Your task to perform on an android device: Show me the alarms in the clock app Image 0: 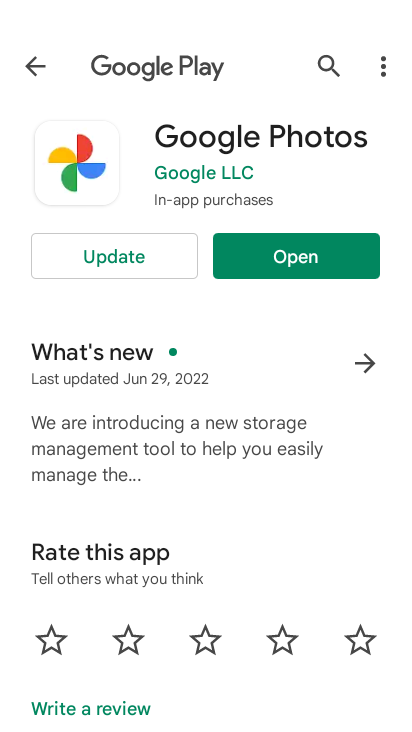
Step 0: press home button
Your task to perform on an android device: Show me the alarms in the clock app Image 1: 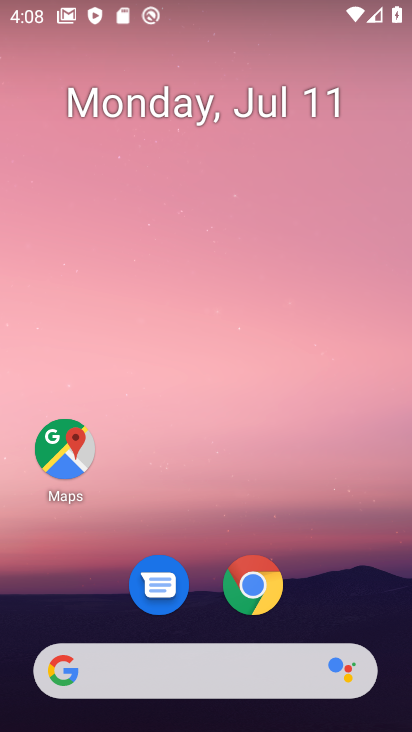
Step 1: drag from (227, 513) to (202, 59)
Your task to perform on an android device: Show me the alarms in the clock app Image 2: 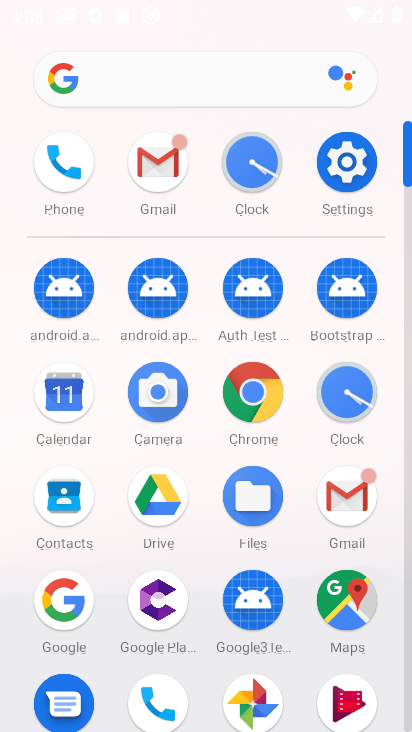
Step 2: click (256, 175)
Your task to perform on an android device: Show me the alarms in the clock app Image 3: 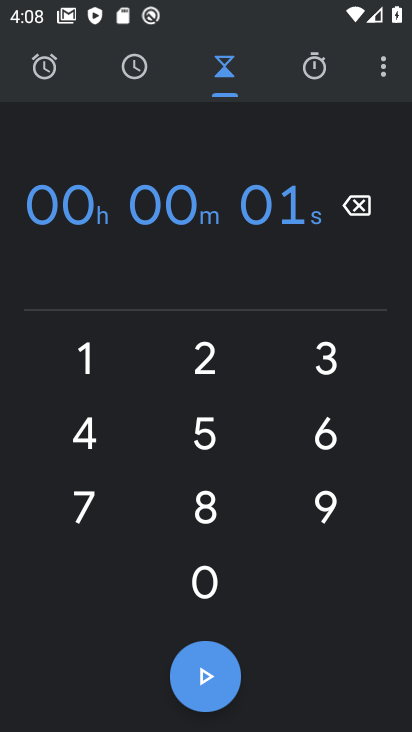
Step 3: click (37, 74)
Your task to perform on an android device: Show me the alarms in the clock app Image 4: 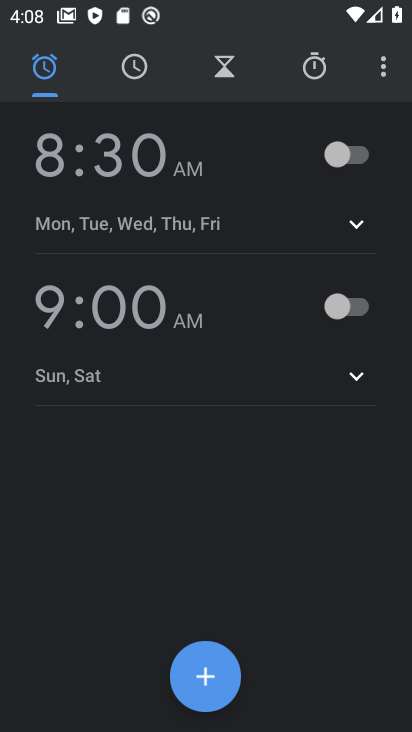
Step 4: task complete